Your task to perform on an android device: Open battery settings Image 0: 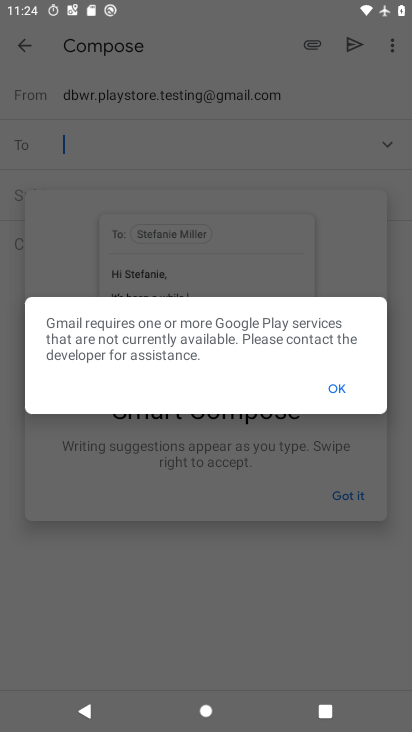
Step 0: press home button
Your task to perform on an android device: Open battery settings Image 1: 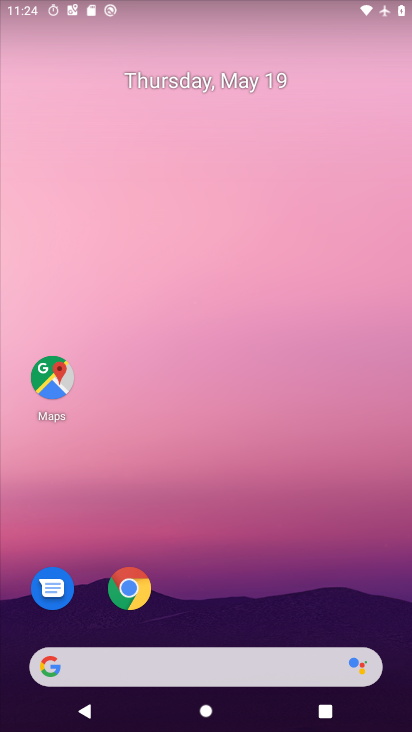
Step 1: drag from (182, 612) to (296, 144)
Your task to perform on an android device: Open battery settings Image 2: 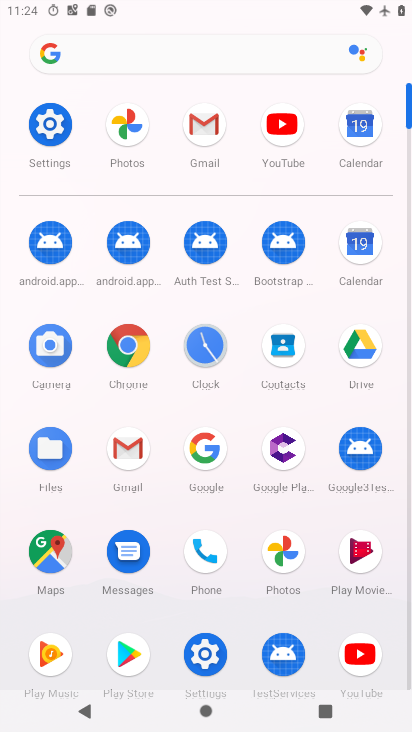
Step 2: click (50, 130)
Your task to perform on an android device: Open battery settings Image 3: 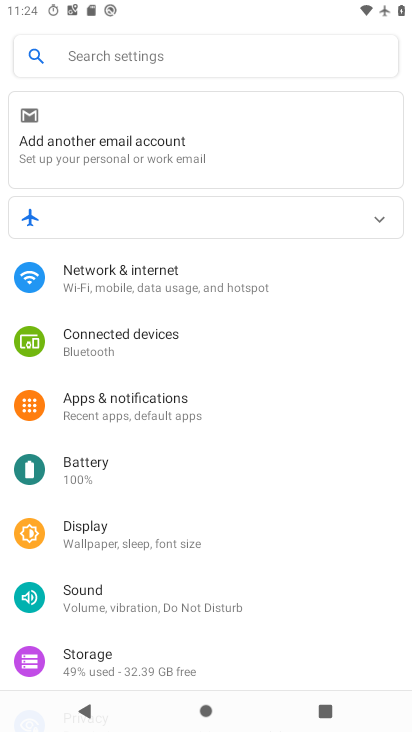
Step 3: click (76, 468)
Your task to perform on an android device: Open battery settings Image 4: 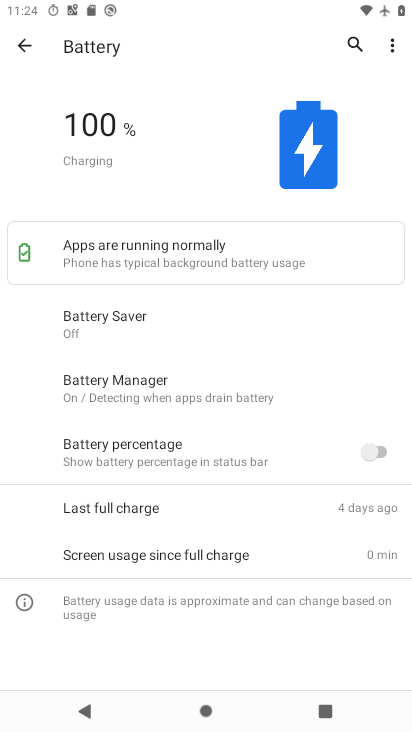
Step 4: task complete